Your task to perform on an android device: toggle sleep mode Image 0: 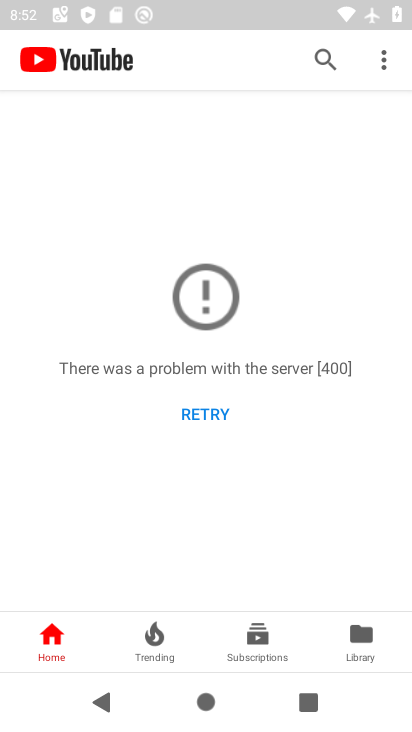
Step 0: press back button
Your task to perform on an android device: toggle sleep mode Image 1: 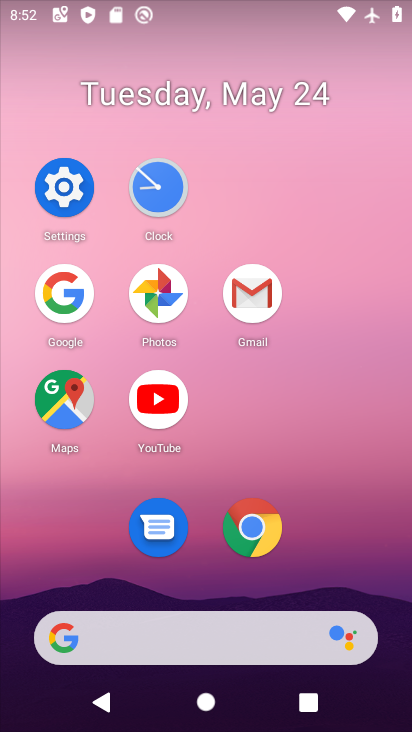
Step 1: click (38, 218)
Your task to perform on an android device: toggle sleep mode Image 2: 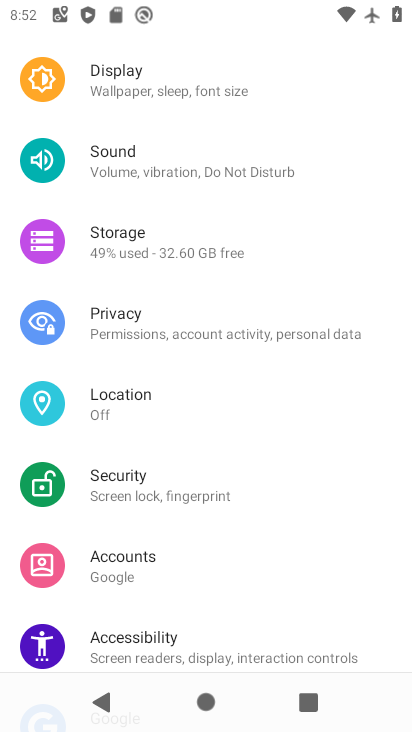
Step 2: click (225, 89)
Your task to perform on an android device: toggle sleep mode Image 3: 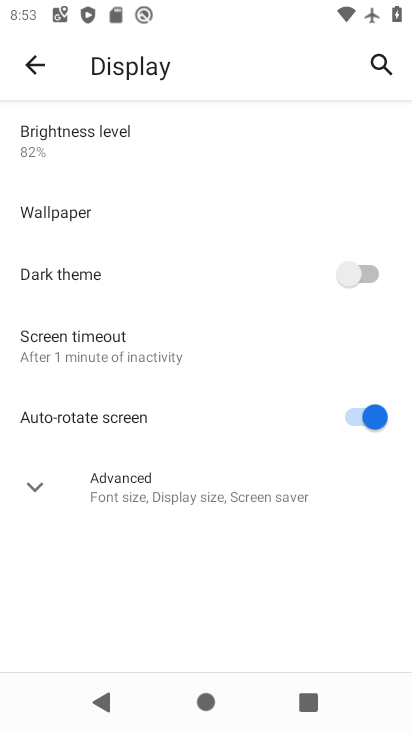
Step 3: click (127, 344)
Your task to perform on an android device: toggle sleep mode Image 4: 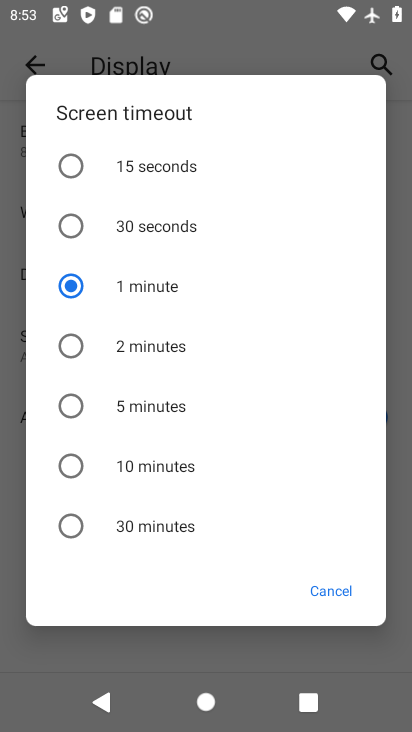
Step 4: click (133, 233)
Your task to perform on an android device: toggle sleep mode Image 5: 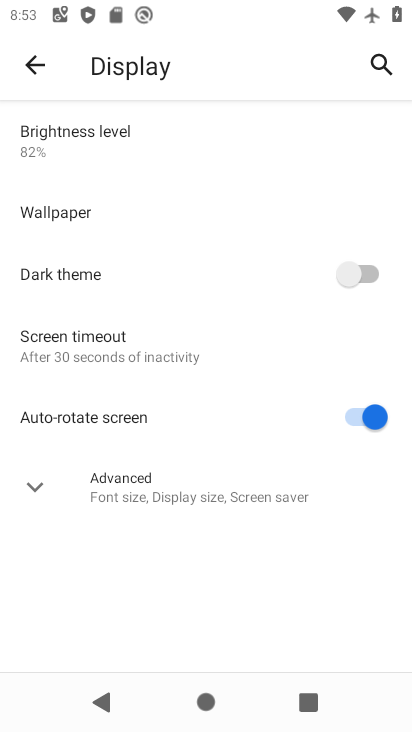
Step 5: task complete